Your task to perform on an android device: Search for sushi restaurants on Maps Image 0: 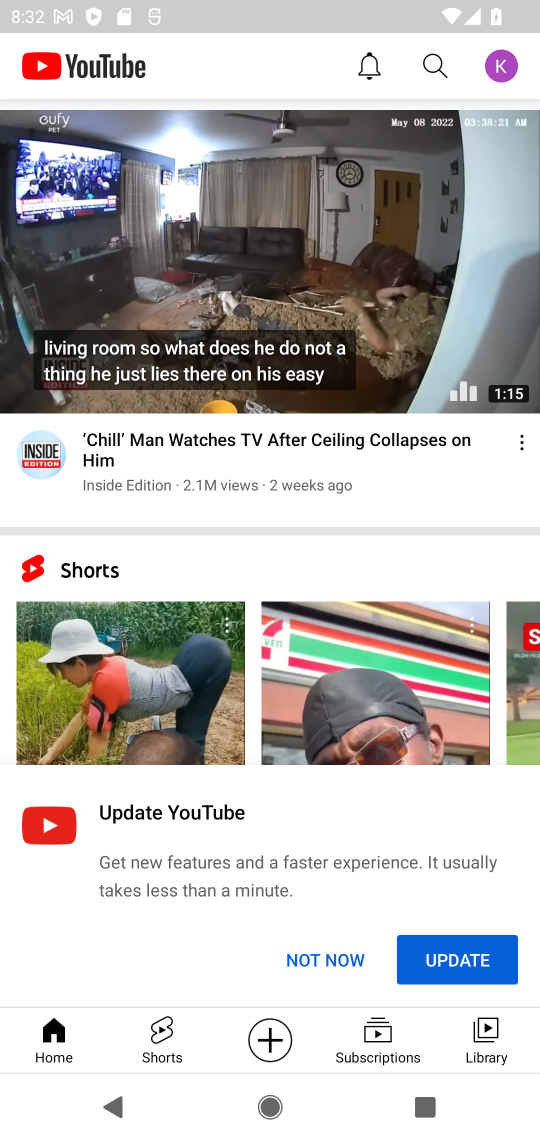
Step 0: press home button
Your task to perform on an android device: Search for sushi restaurants on Maps Image 1: 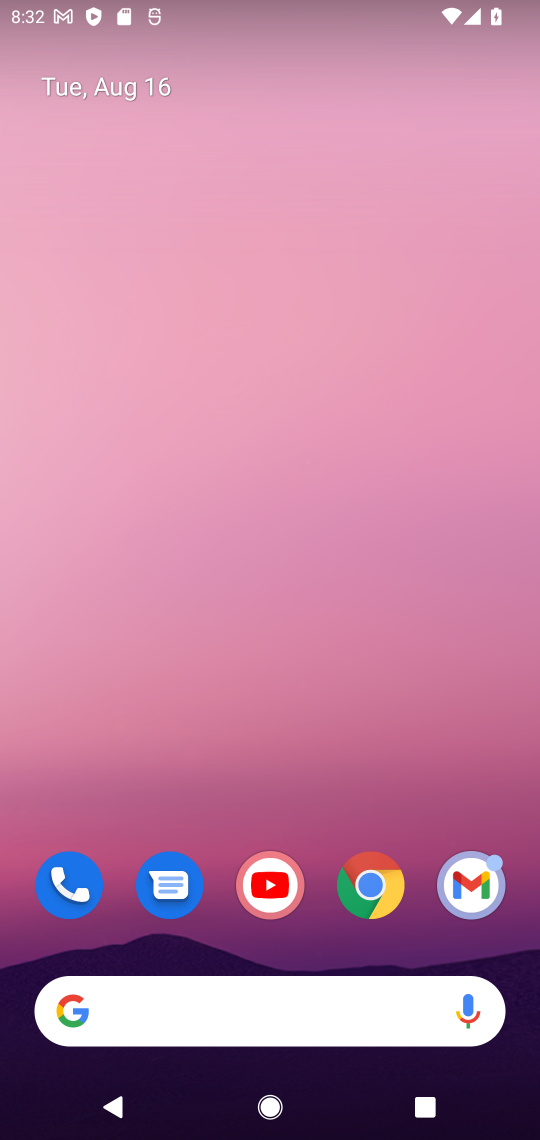
Step 1: click (465, 898)
Your task to perform on an android device: Search for sushi restaurants on Maps Image 2: 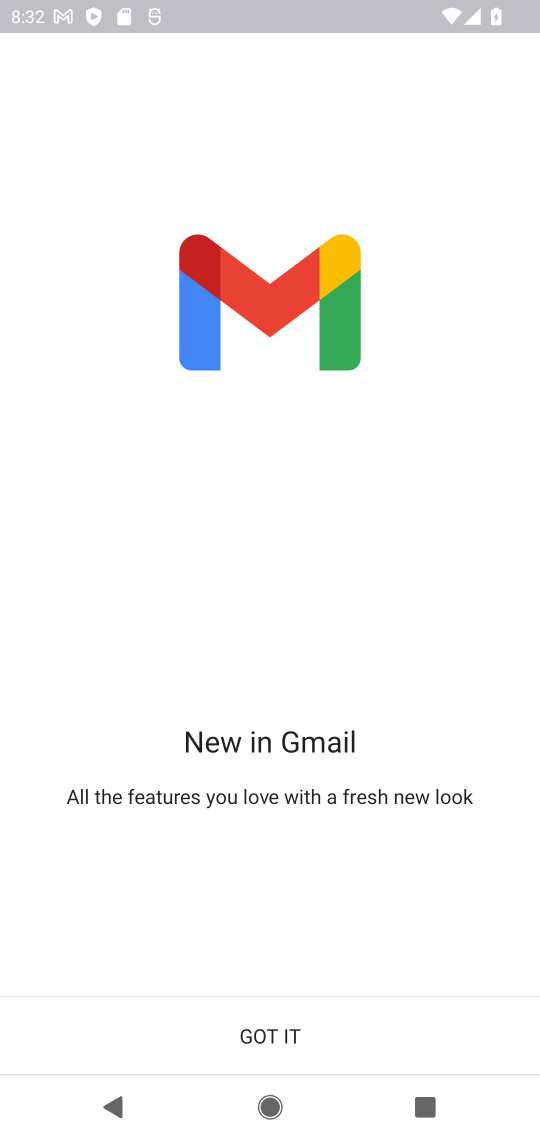
Step 2: click (262, 1041)
Your task to perform on an android device: Search for sushi restaurants on Maps Image 3: 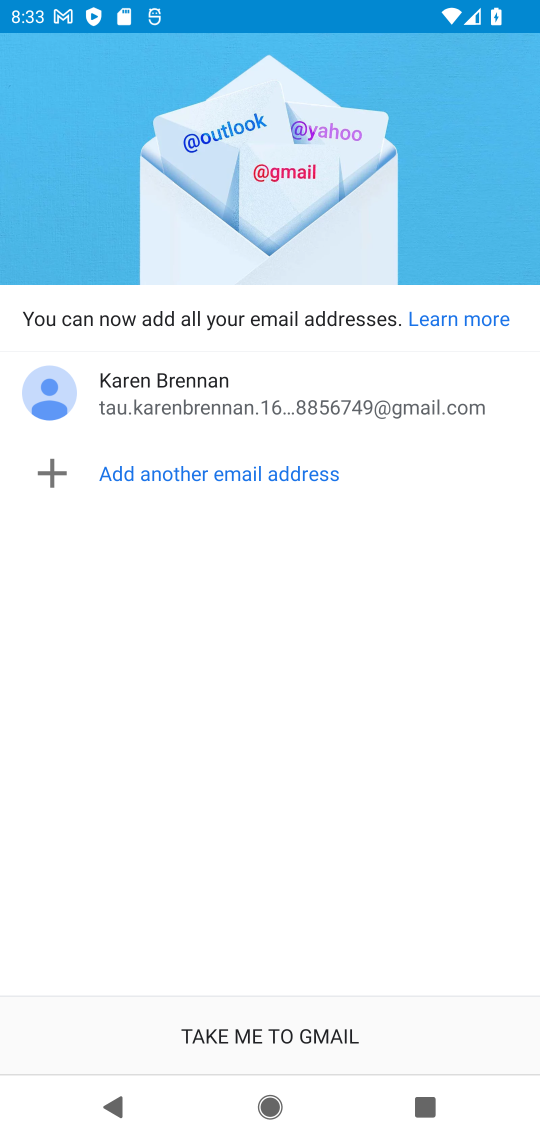
Step 3: press home button
Your task to perform on an android device: Search for sushi restaurants on Maps Image 4: 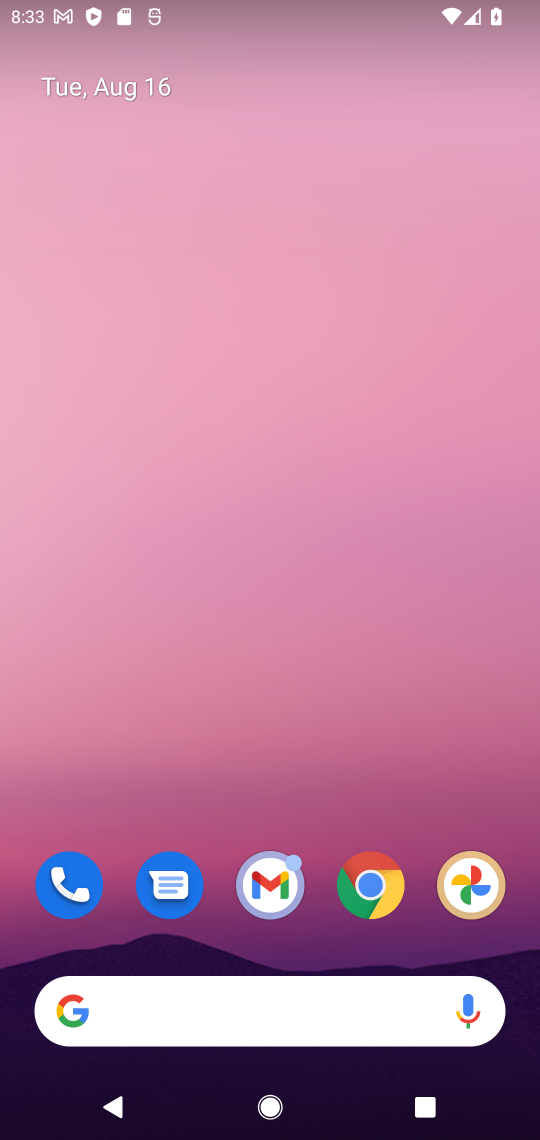
Step 4: drag from (227, 919) to (274, 222)
Your task to perform on an android device: Search for sushi restaurants on Maps Image 5: 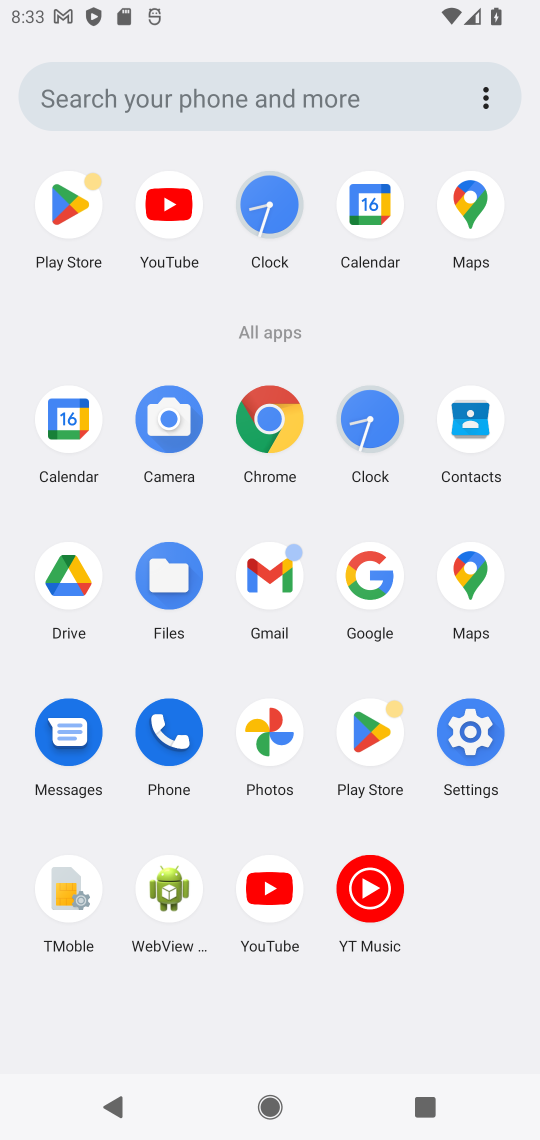
Step 5: click (467, 209)
Your task to perform on an android device: Search for sushi restaurants on Maps Image 6: 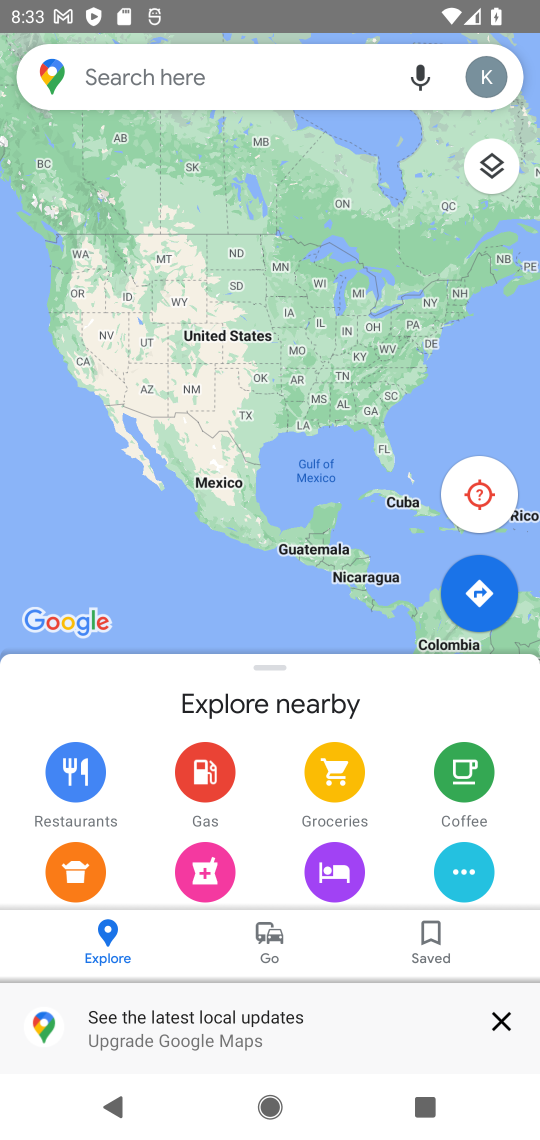
Step 6: click (242, 81)
Your task to perform on an android device: Search for sushi restaurants on Maps Image 7: 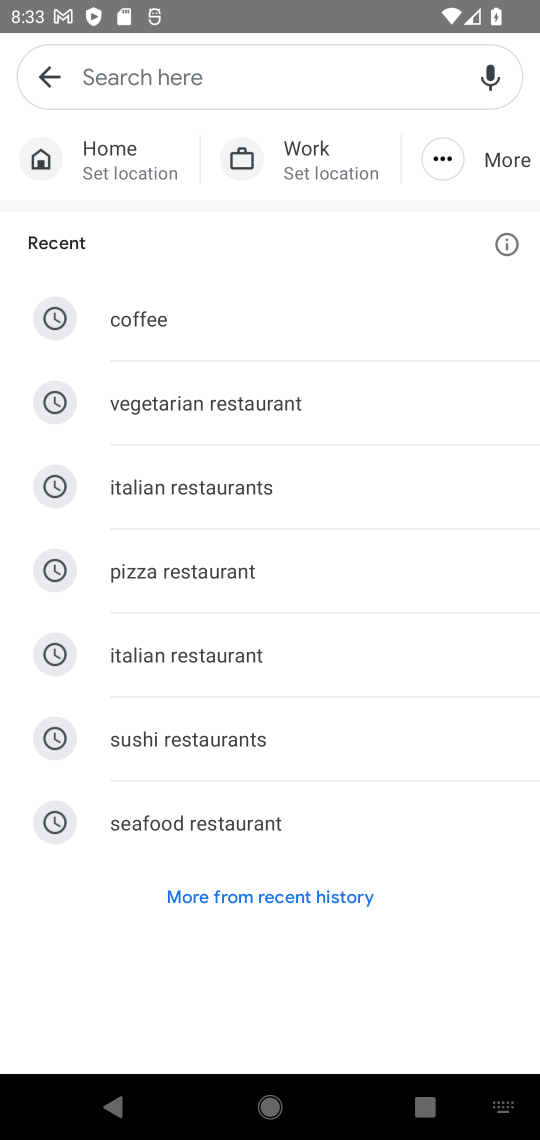
Step 7: click (246, 733)
Your task to perform on an android device: Search for sushi restaurants on Maps Image 8: 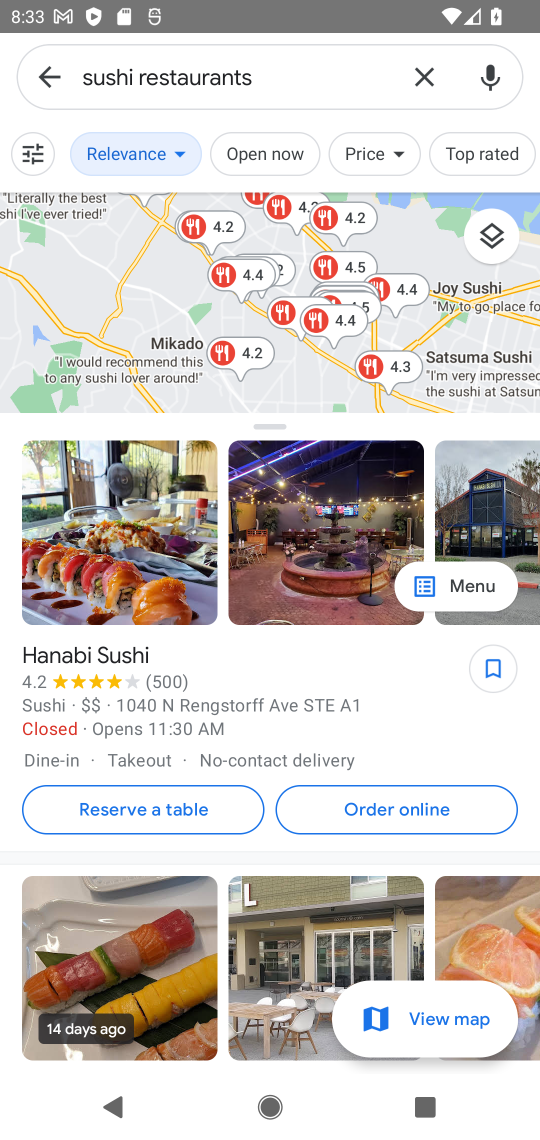
Step 8: task complete